Your task to perform on an android device: turn off smart reply in the gmail app Image 0: 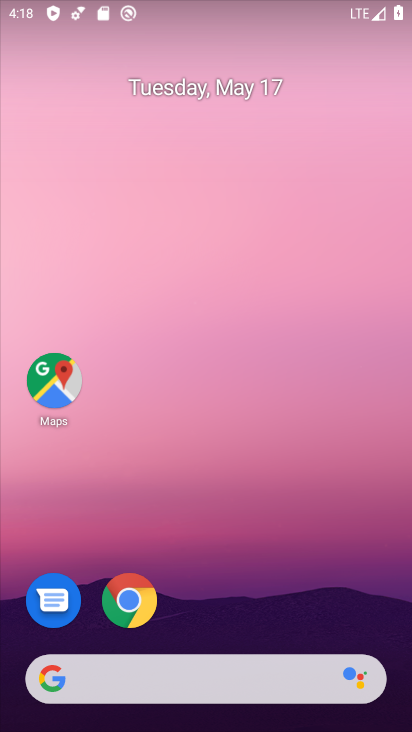
Step 0: drag from (384, 634) to (296, 49)
Your task to perform on an android device: turn off smart reply in the gmail app Image 1: 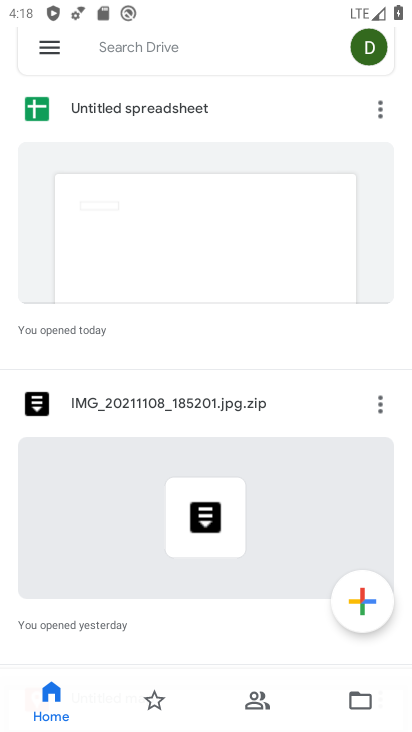
Step 1: press home button
Your task to perform on an android device: turn off smart reply in the gmail app Image 2: 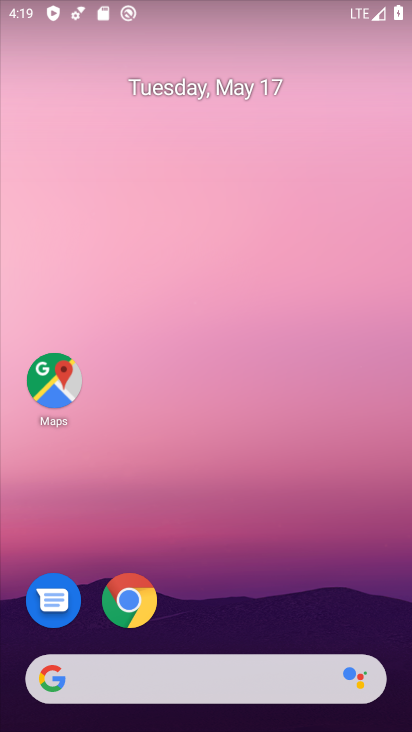
Step 2: drag from (372, 591) to (350, 60)
Your task to perform on an android device: turn off smart reply in the gmail app Image 3: 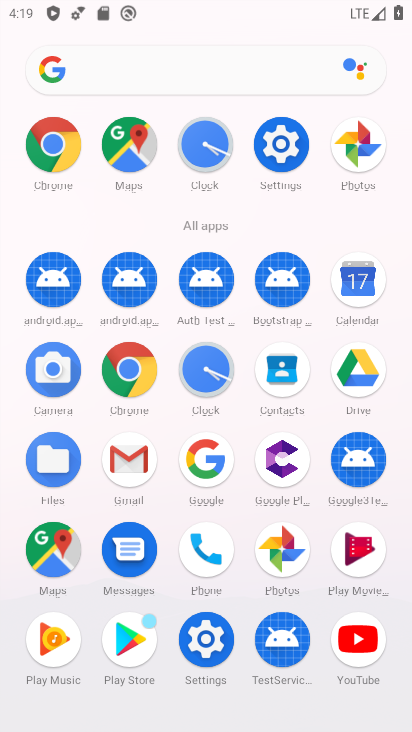
Step 3: click (130, 460)
Your task to perform on an android device: turn off smart reply in the gmail app Image 4: 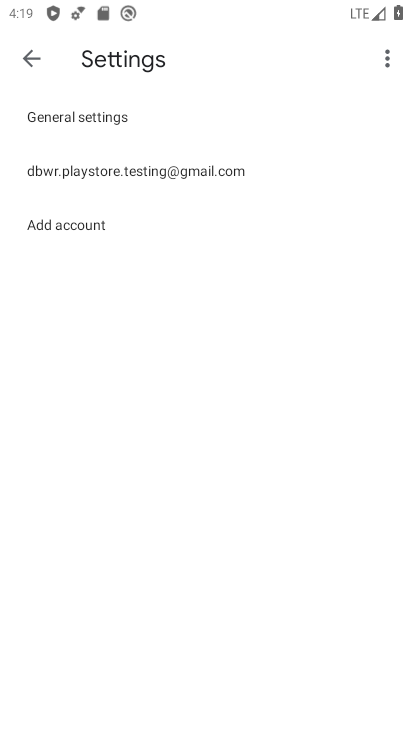
Step 4: click (138, 168)
Your task to perform on an android device: turn off smart reply in the gmail app Image 5: 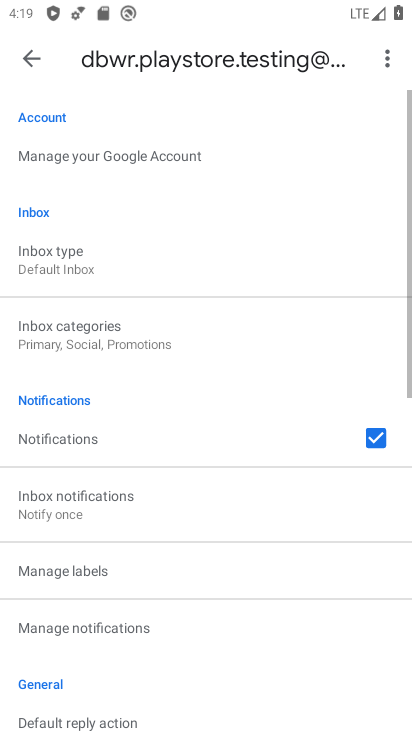
Step 5: drag from (222, 565) to (253, 206)
Your task to perform on an android device: turn off smart reply in the gmail app Image 6: 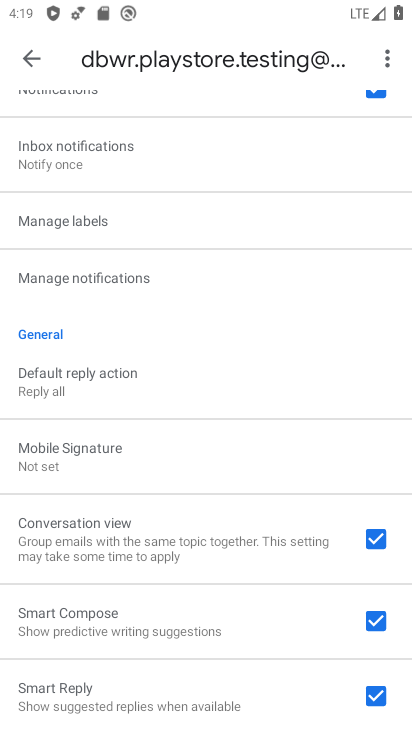
Step 6: drag from (269, 593) to (278, 166)
Your task to perform on an android device: turn off smart reply in the gmail app Image 7: 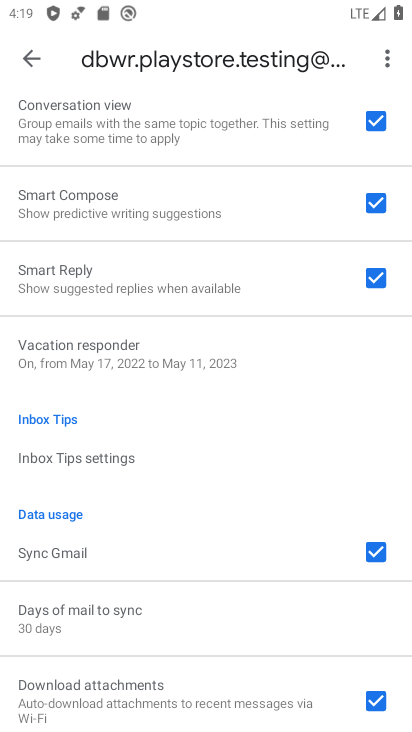
Step 7: click (380, 276)
Your task to perform on an android device: turn off smart reply in the gmail app Image 8: 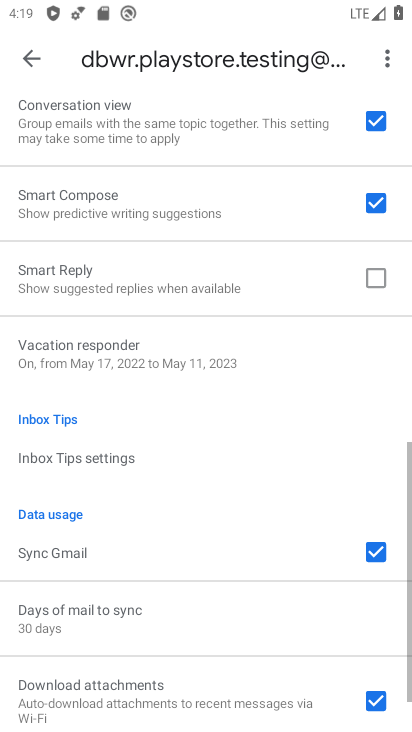
Step 8: task complete